Your task to perform on an android device: turn pop-ups on in chrome Image 0: 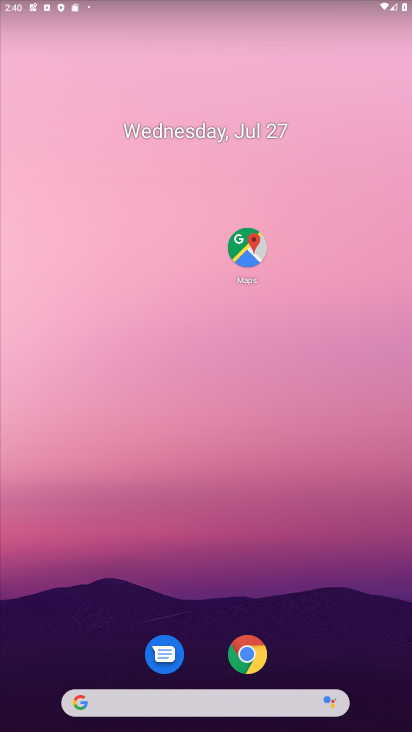
Step 0: click (253, 654)
Your task to perform on an android device: turn pop-ups on in chrome Image 1: 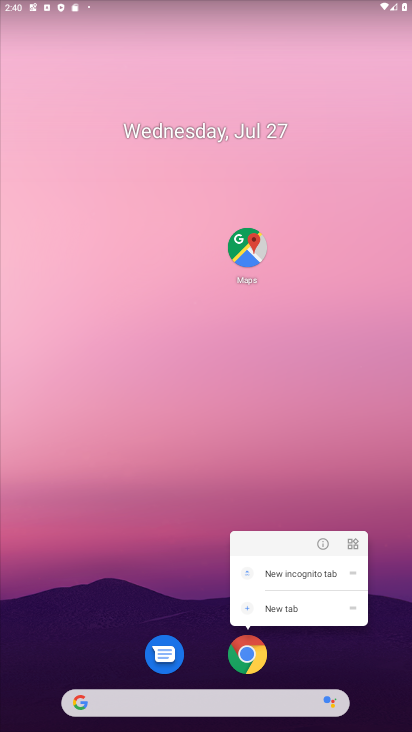
Step 1: click (257, 646)
Your task to perform on an android device: turn pop-ups on in chrome Image 2: 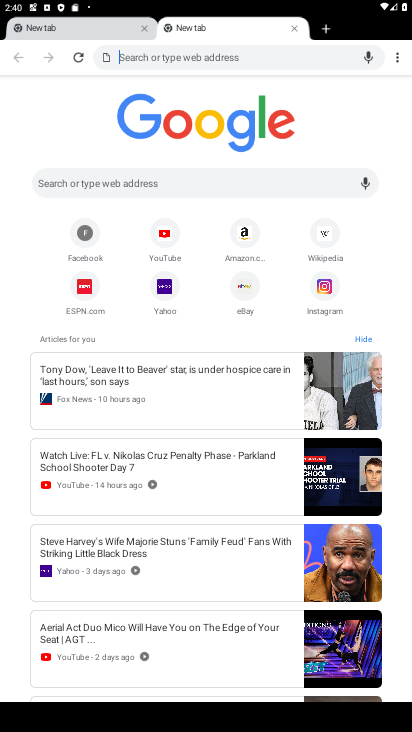
Step 2: click (397, 58)
Your task to perform on an android device: turn pop-ups on in chrome Image 3: 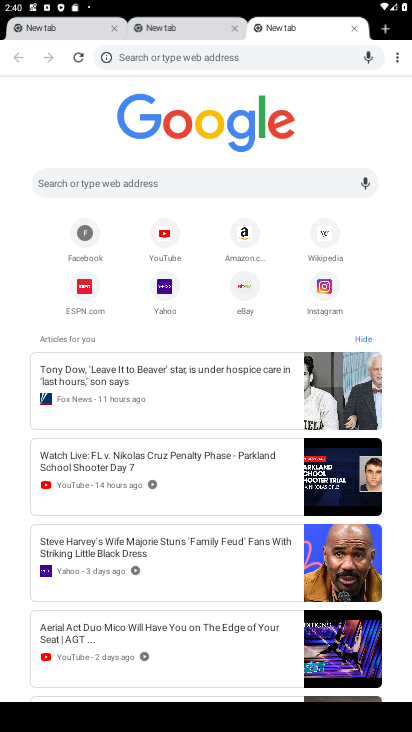
Step 3: click (397, 58)
Your task to perform on an android device: turn pop-ups on in chrome Image 4: 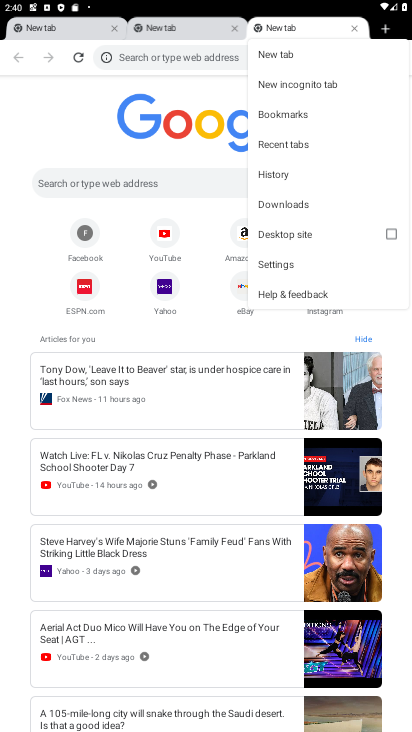
Step 4: click (274, 262)
Your task to perform on an android device: turn pop-ups on in chrome Image 5: 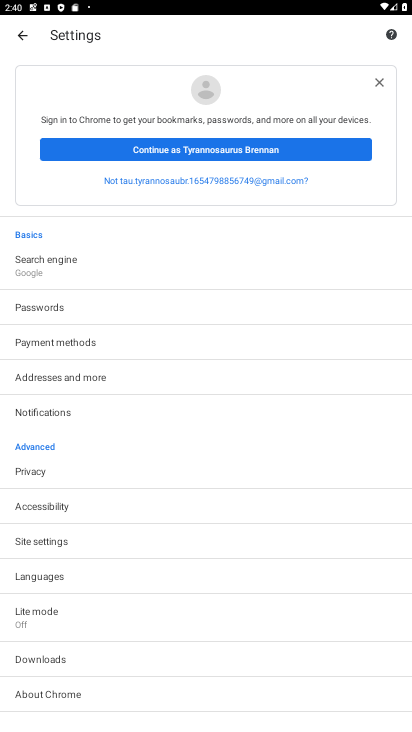
Step 5: click (56, 540)
Your task to perform on an android device: turn pop-ups on in chrome Image 6: 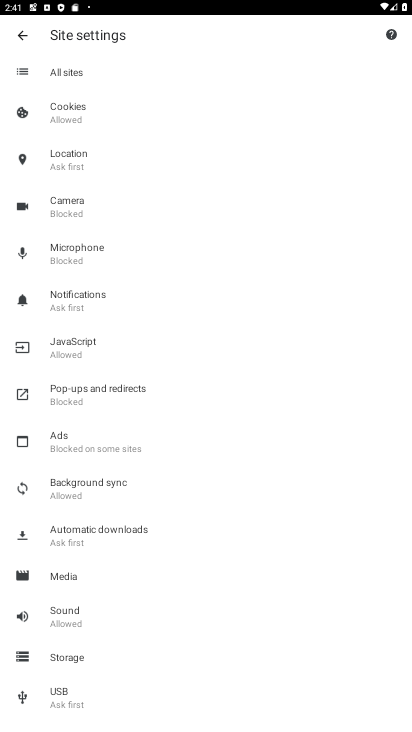
Step 6: click (94, 392)
Your task to perform on an android device: turn pop-ups on in chrome Image 7: 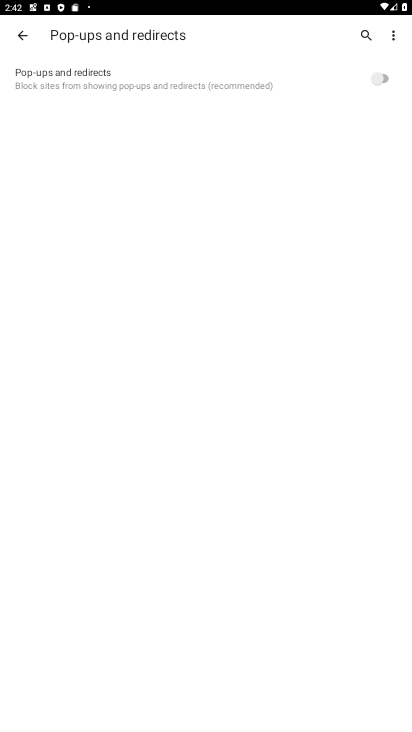
Step 7: click (374, 78)
Your task to perform on an android device: turn pop-ups on in chrome Image 8: 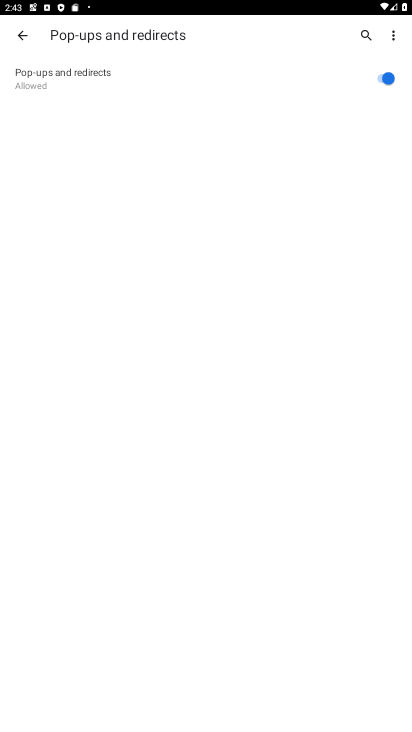
Step 8: task complete